Your task to perform on an android device: set the stopwatch Image 0: 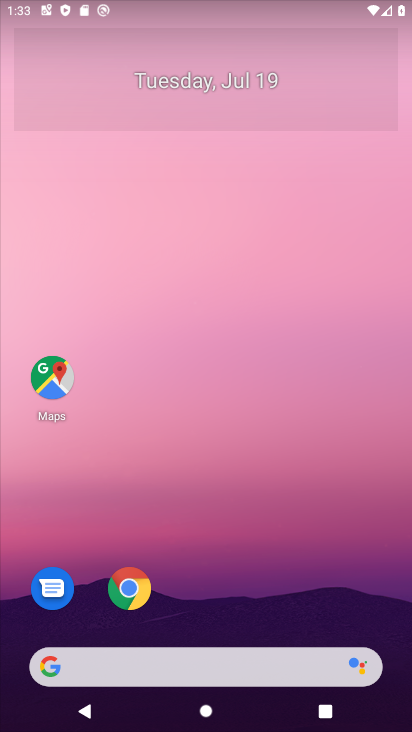
Step 0: drag from (47, 679) to (299, 1)
Your task to perform on an android device: set the stopwatch Image 1: 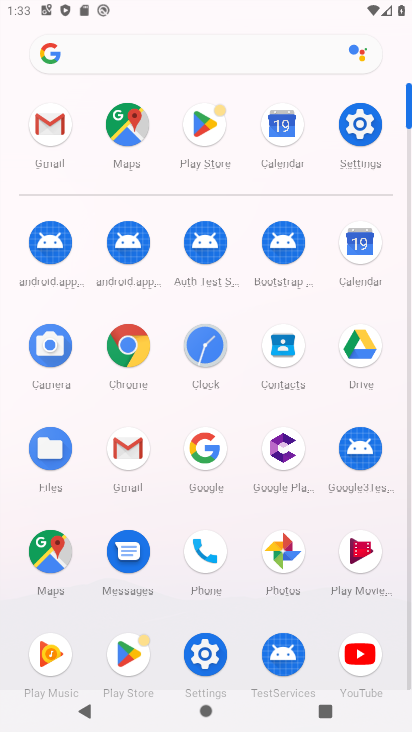
Step 1: click (206, 363)
Your task to perform on an android device: set the stopwatch Image 2: 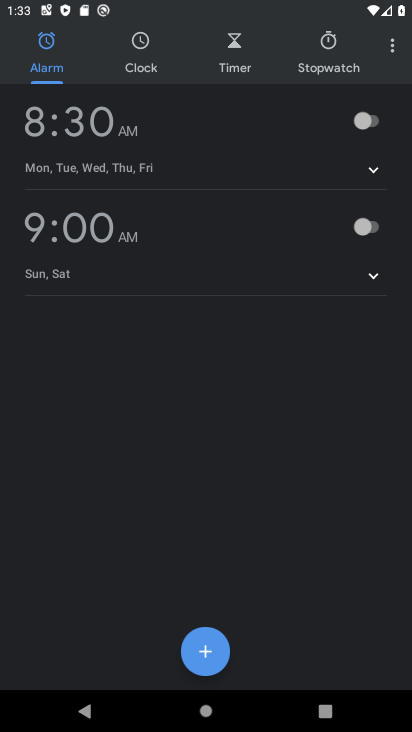
Step 2: click (321, 54)
Your task to perform on an android device: set the stopwatch Image 3: 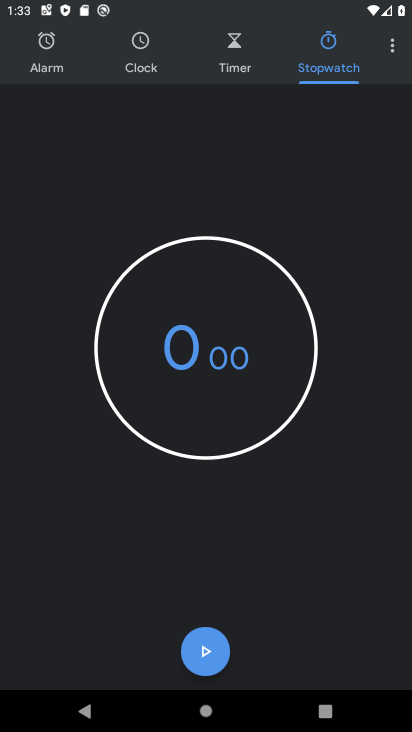
Step 3: click (209, 324)
Your task to perform on an android device: set the stopwatch Image 4: 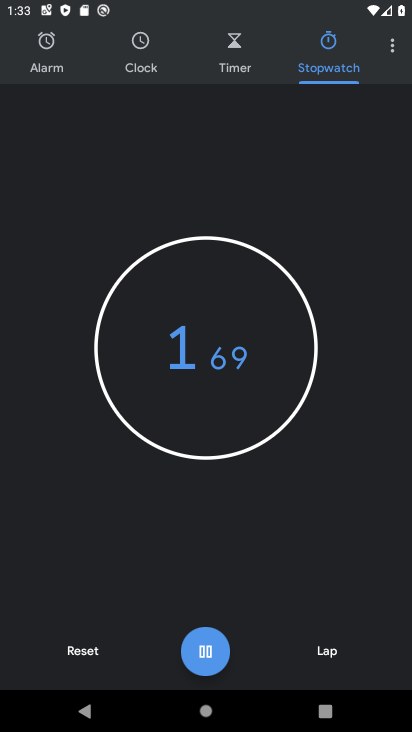
Step 4: click (212, 650)
Your task to perform on an android device: set the stopwatch Image 5: 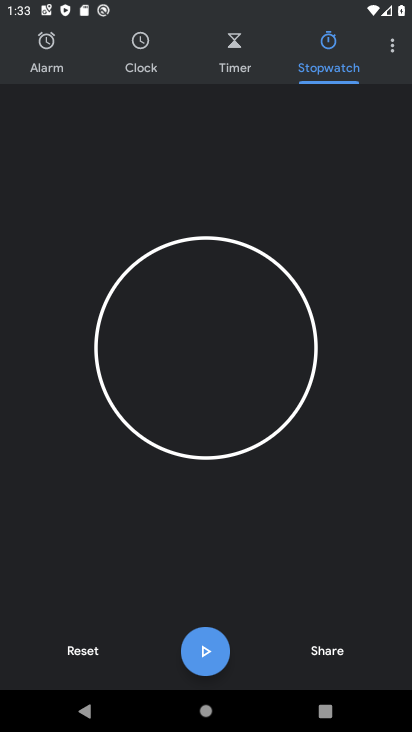
Step 5: task complete